Your task to perform on an android device: Show me the alarms in the clock app Image 0: 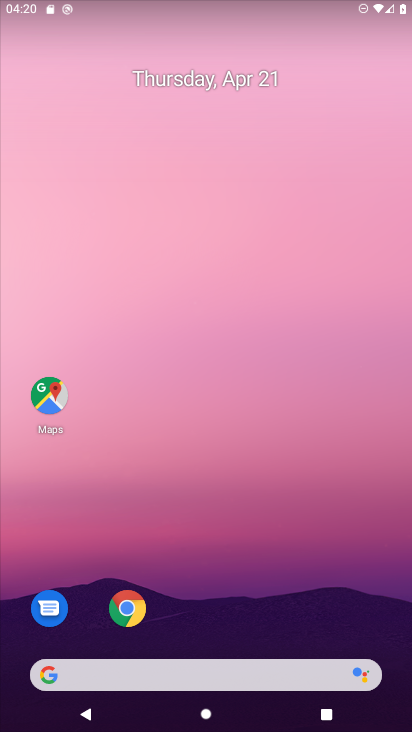
Step 0: drag from (244, 193) to (244, 146)
Your task to perform on an android device: Show me the alarms in the clock app Image 1: 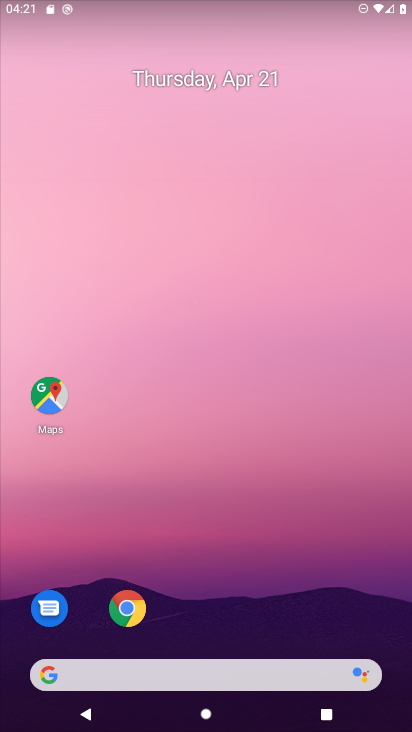
Step 1: drag from (224, 507) to (287, 155)
Your task to perform on an android device: Show me the alarms in the clock app Image 2: 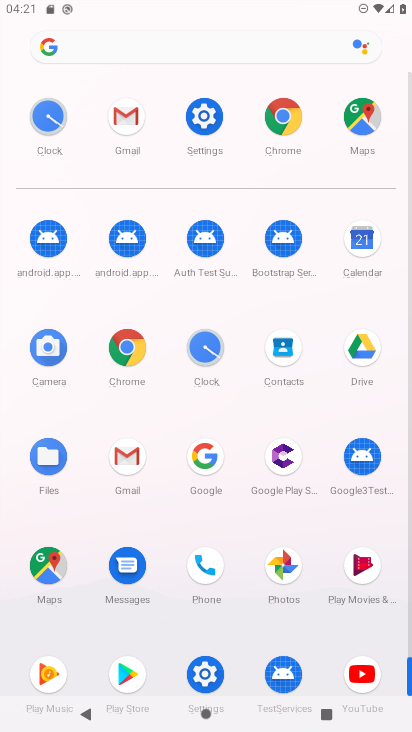
Step 2: click (205, 336)
Your task to perform on an android device: Show me the alarms in the clock app Image 3: 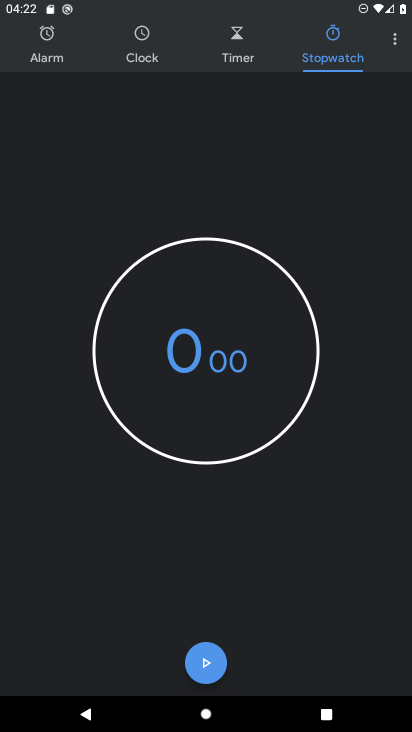
Step 3: click (54, 43)
Your task to perform on an android device: Show me the alarms in the clock app Image 4: 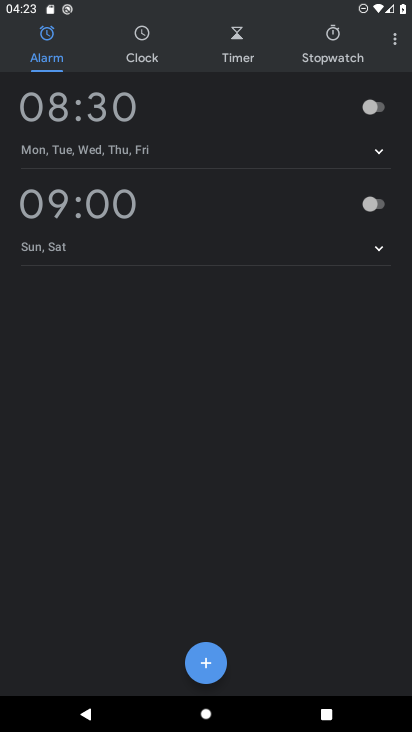
Step 4: task complete